Your task to perform on an android device: open app "NewsBreak: Local News & Alerts" (install if not already installed), go to login, and select forgot password Image 0: 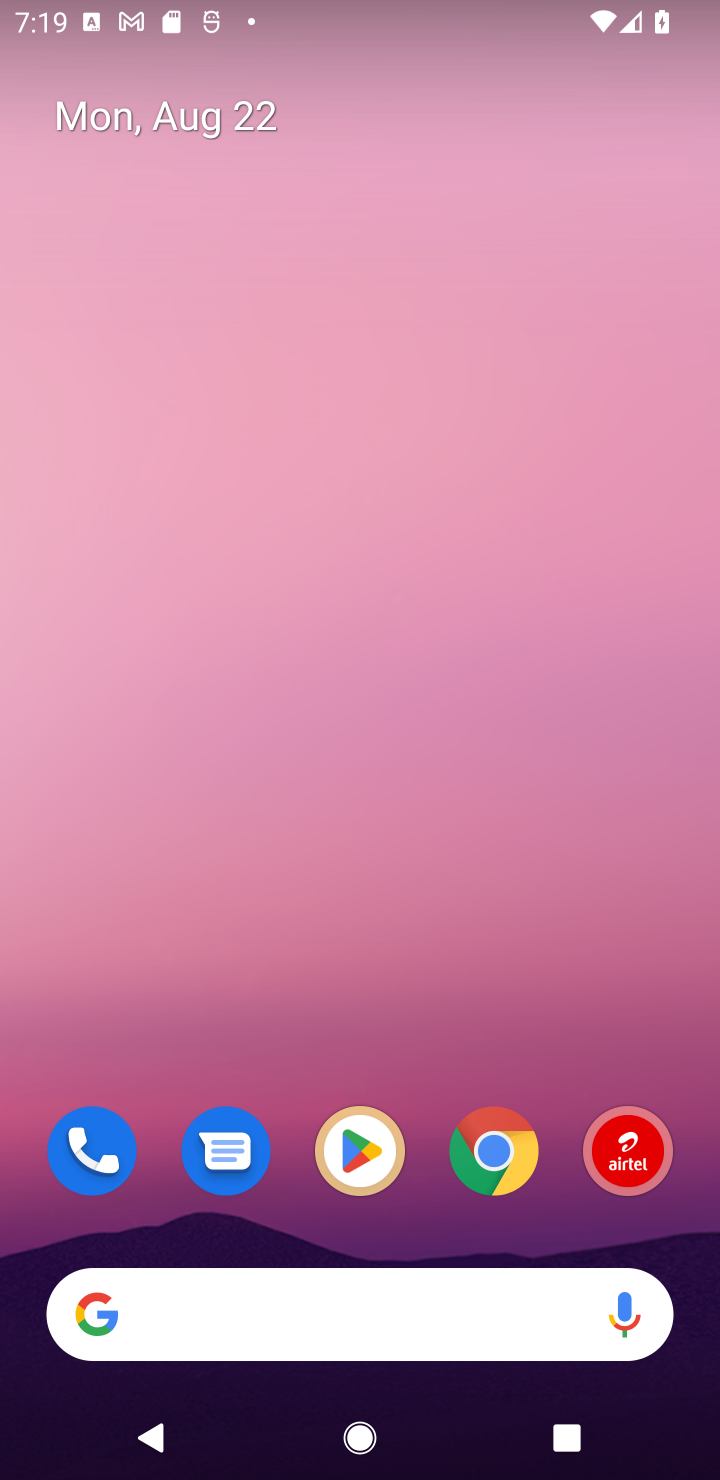
Step 0: press home button
Your task to perform on an android device: open app "NewsBreak: Local News & Alerts" (install if not already installed), go to login, and select forgot password Image 1: 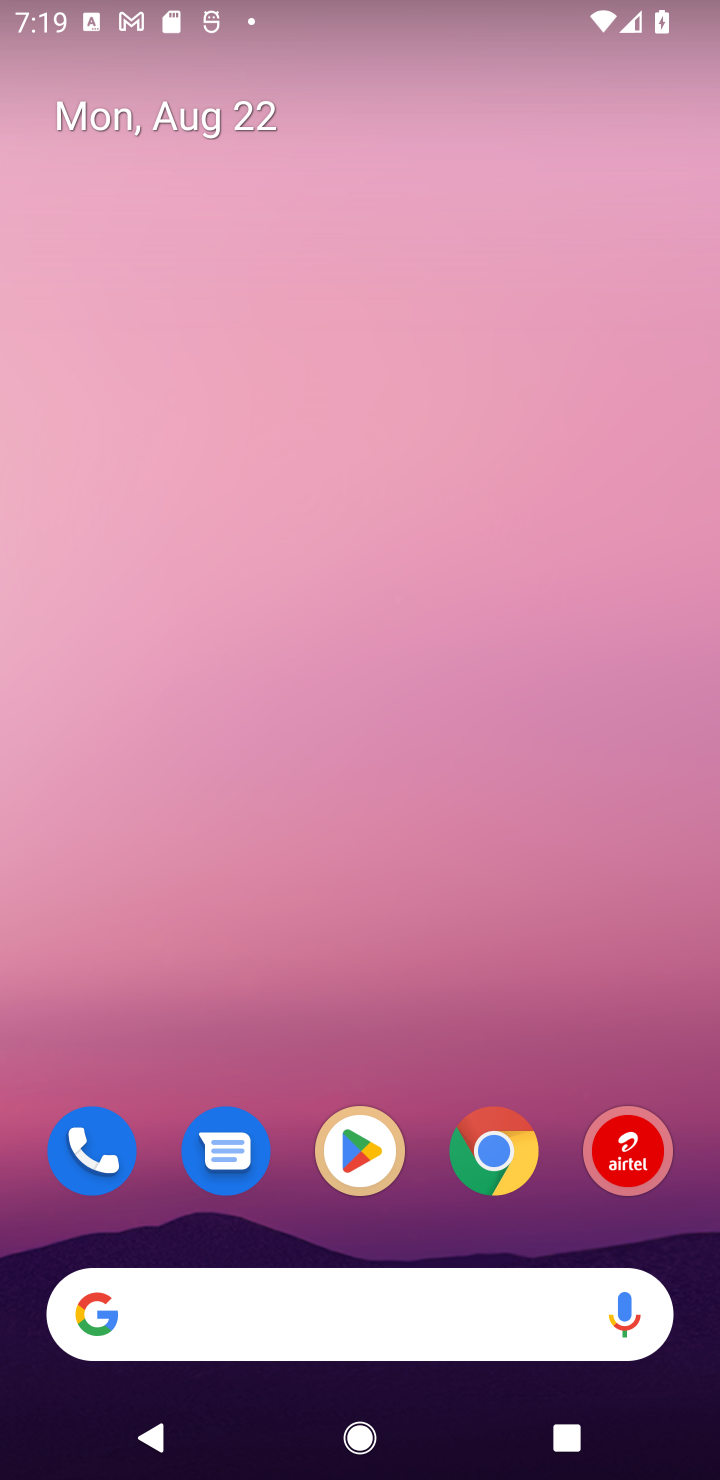
Step 1: click (340, 1160)
Your task to perform on an android device: open app "NewsBreak: Local News & Alerts" (install if not already installed), go to login, and select forgot password Image 2: 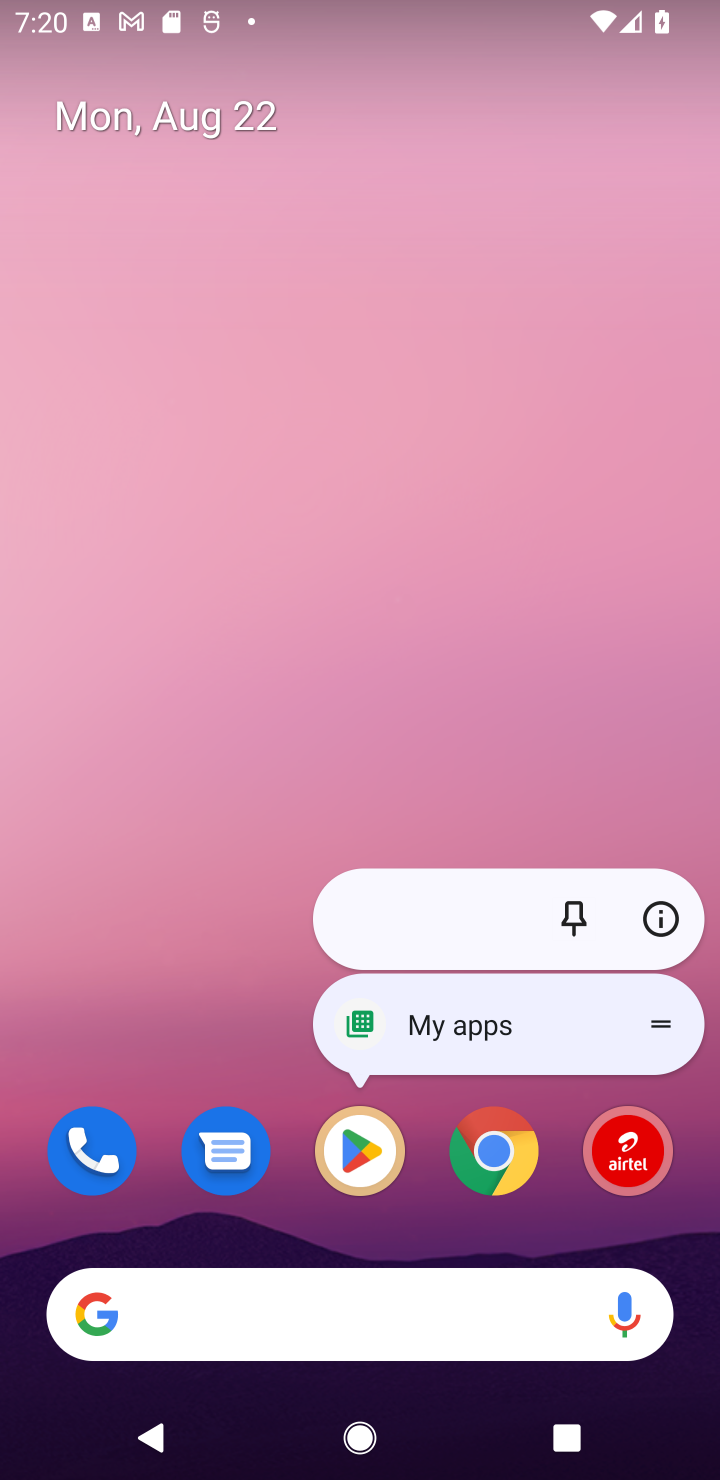
Step 2: click (340, 1165)
Your task to perform on an android device: open app "NewsBreak: Local News & Alerts" (install if not already installed), go to login, and select forgot password Image 3: 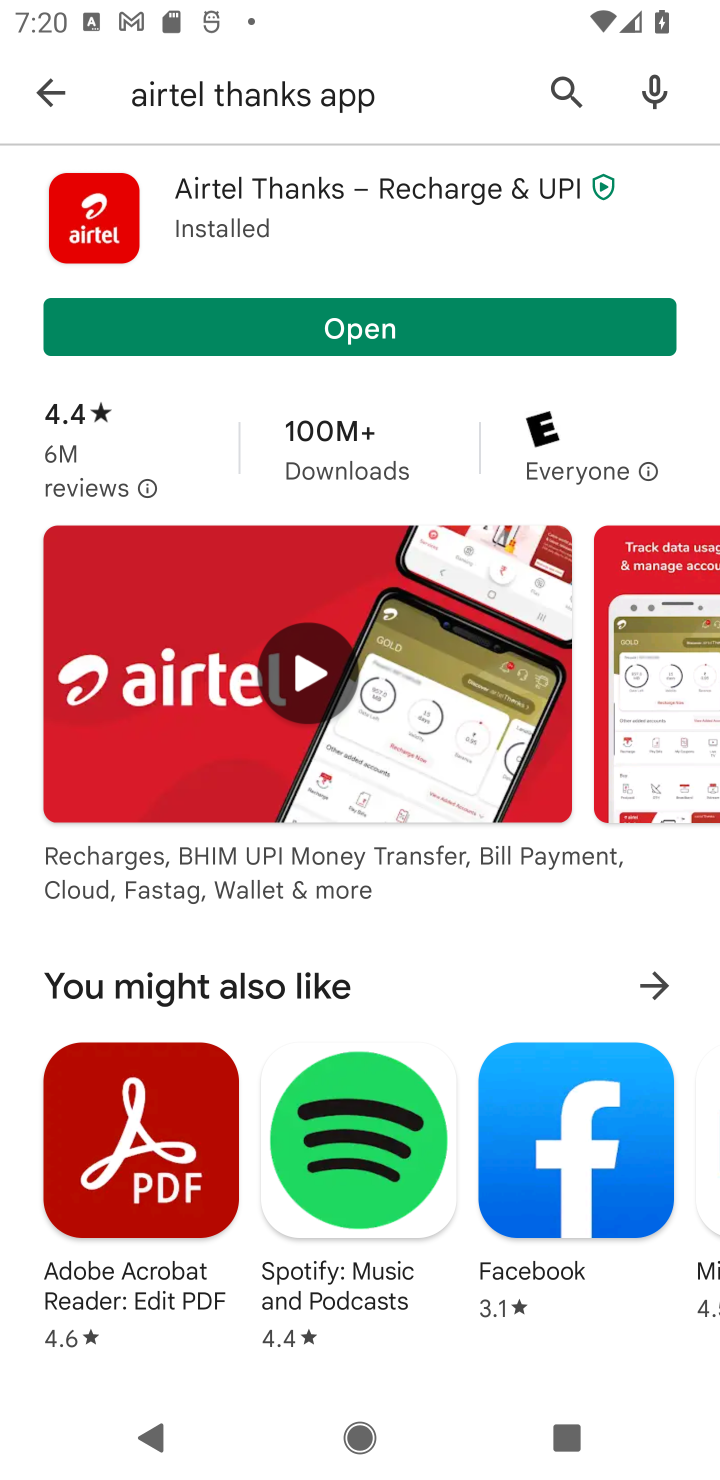
Step 3: click (560, 80)
Your task to perform on an android device: open app "NewsBreak: Local News & Alerts" (install if not already installed), go to login, and select forgot password Image 4: 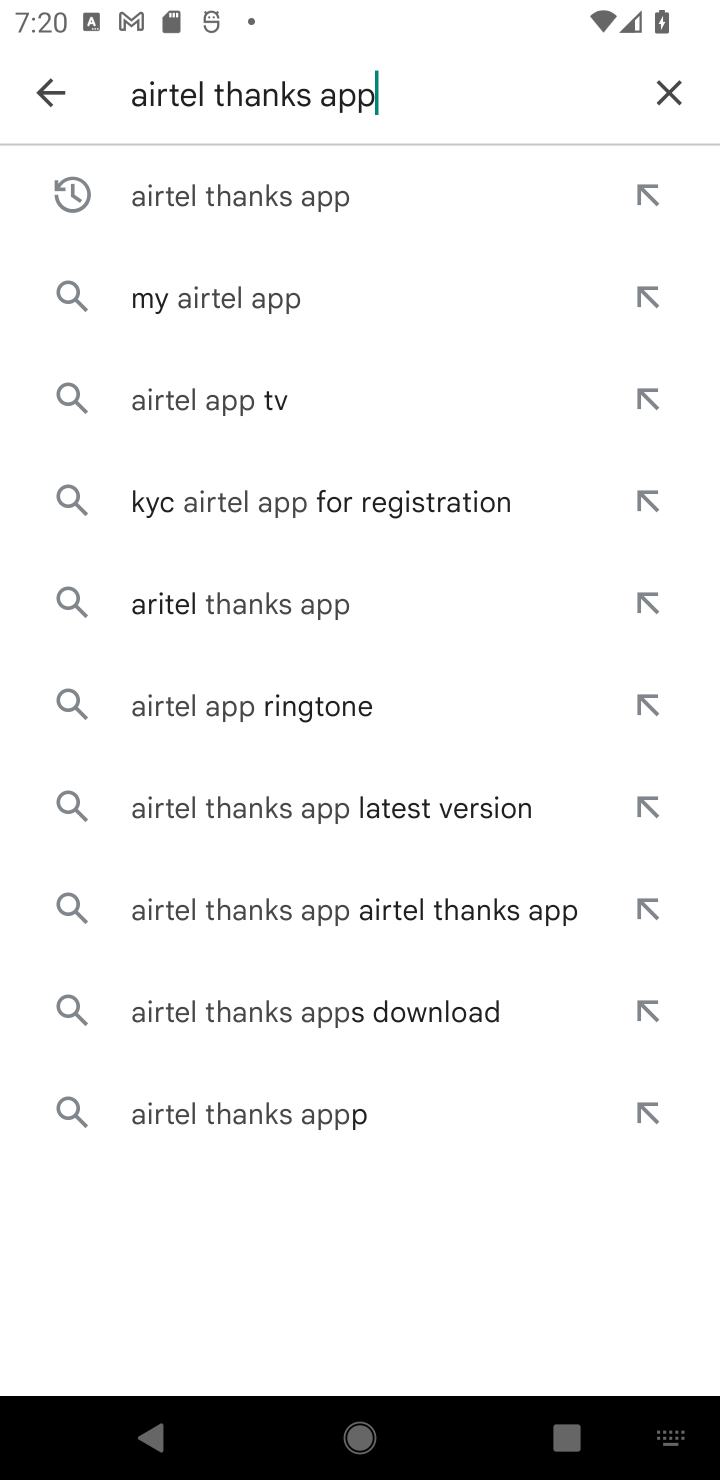
Step 4: click (663, 86)
Your task to perform on an android device: open app "NewsBreak: Local News & Alerts" (install if not already installed), go to login, and select forgot password Image 5: 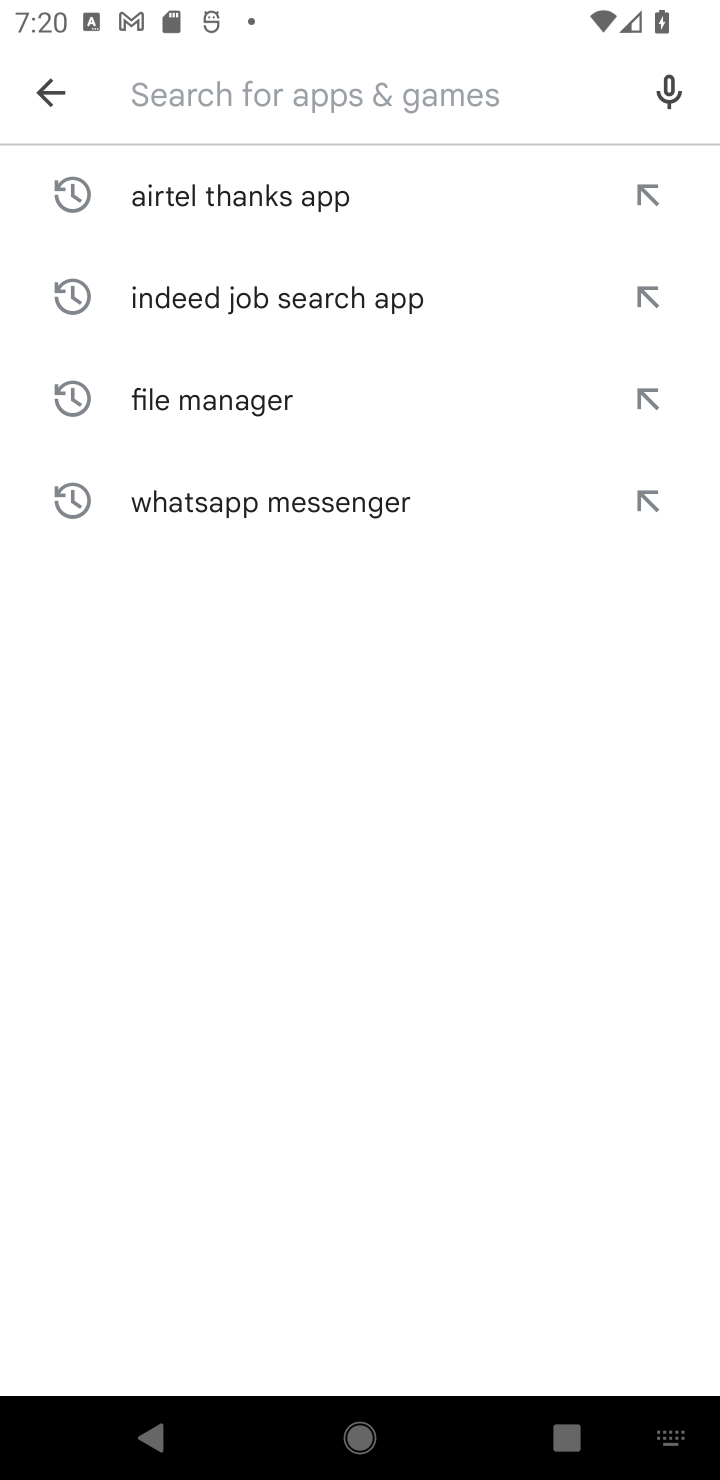
Step 5: type "NewsBreak: Local News & Alerts"
Your task to perform on an android device: open app "NewsBreak: Local News & Alerts" (install if not already installed), go to login, and select forgot password Image 6: 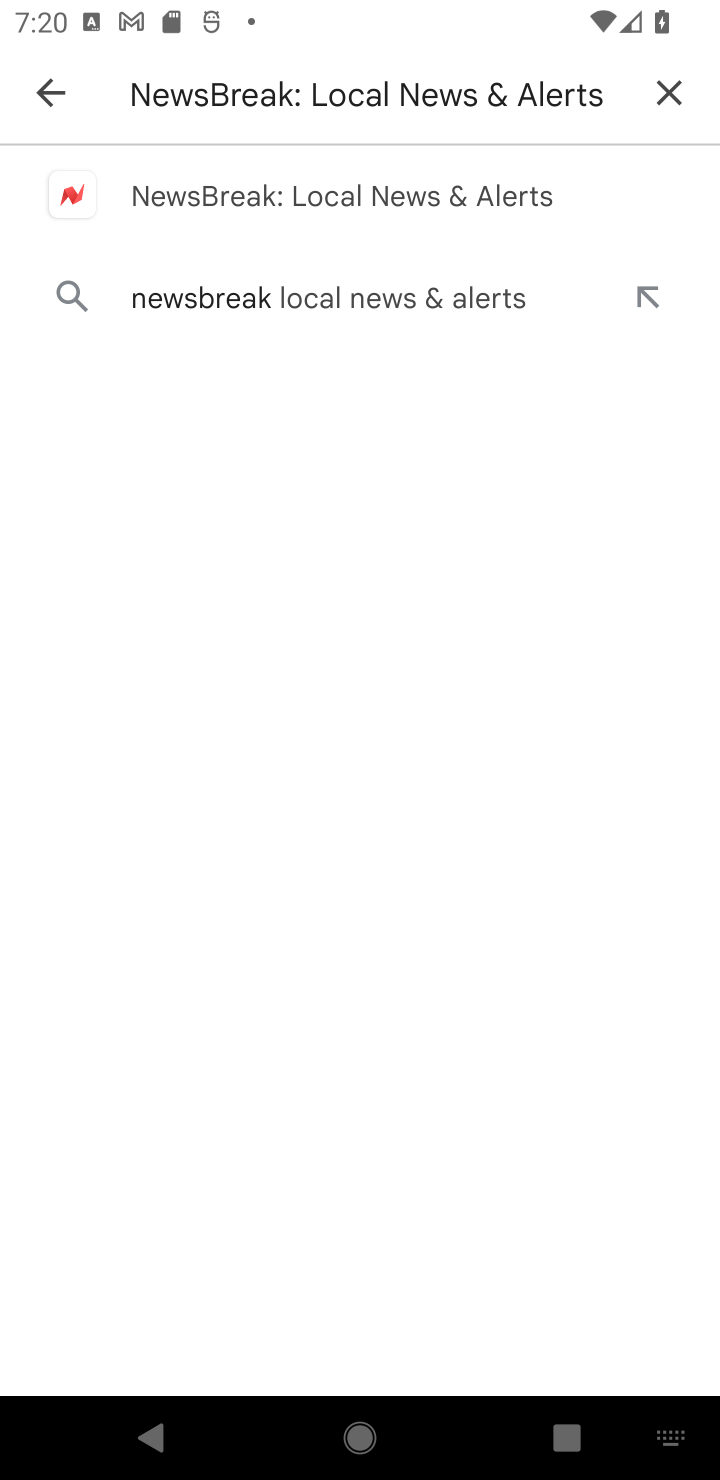
Step 6: click (372, 198)
Your task to perform on an android device: open app "NewsBreak: Local News & Alerts" (install if not already installed), go to login, and select forgot password Image 7: 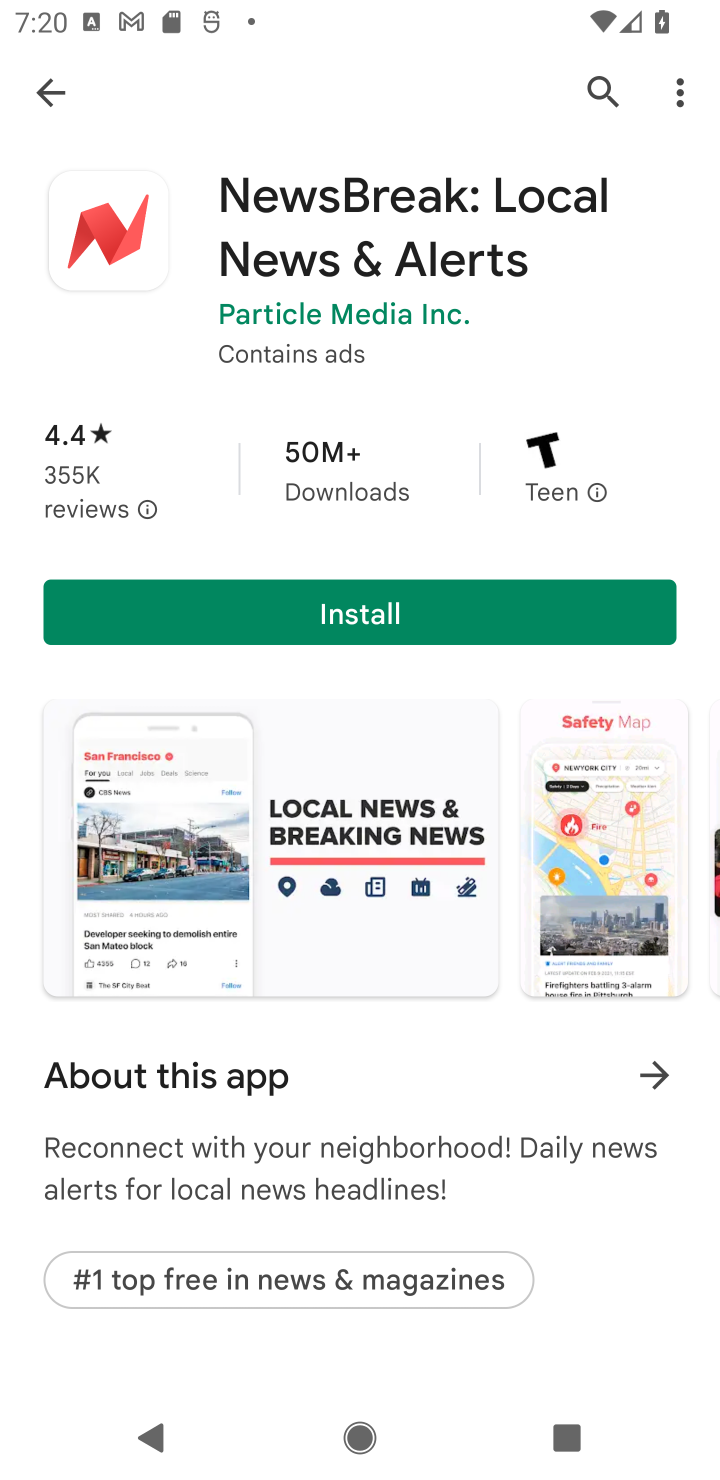
Step 7: click (354, 615)
Your task to perform on an android device: open app "NewsBreak: Local News & Alerts" (install if not already installed), go to login, and select forgot password Image 8: 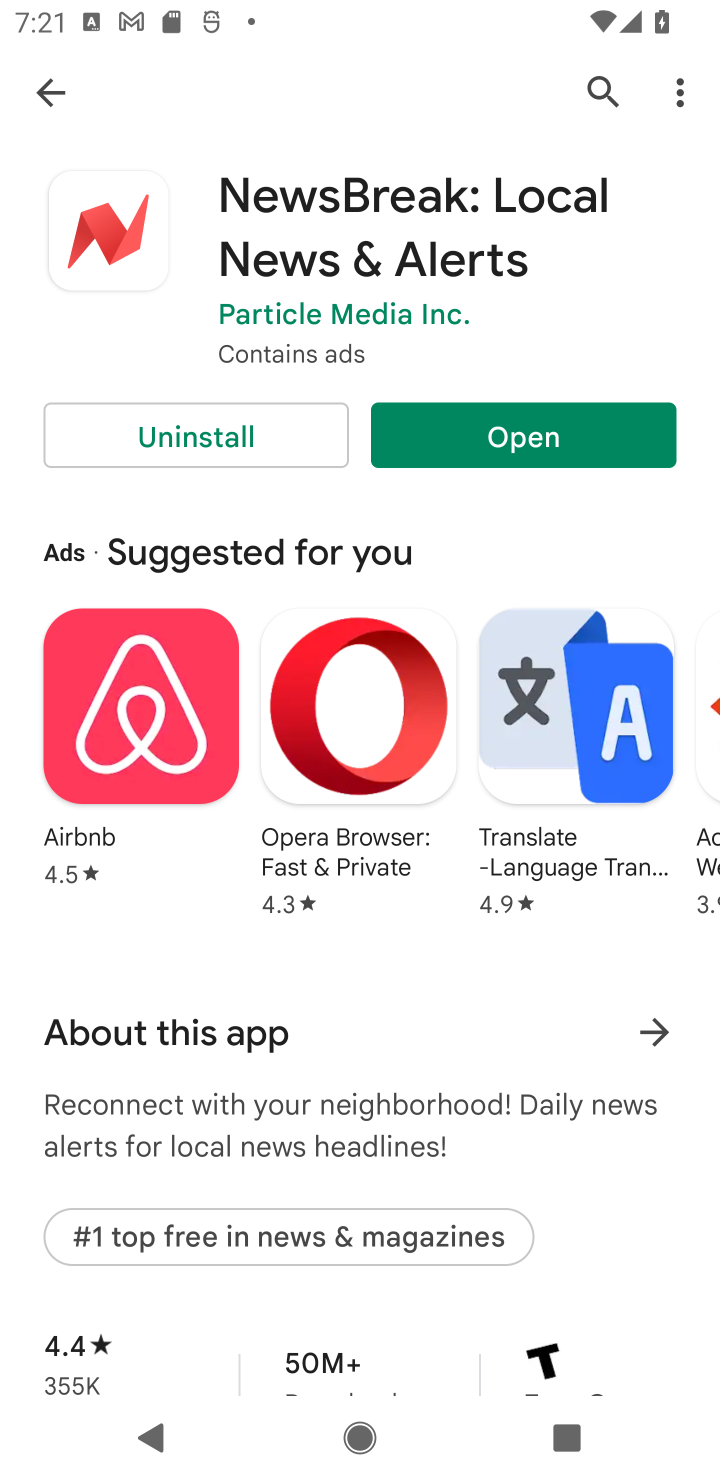
Step 8: click (547, 445)
Your task to perform on an android device: open app "NewsBreak: Local News & Alerts" (install if not already installed), go to login, and select forgot password Image 9: 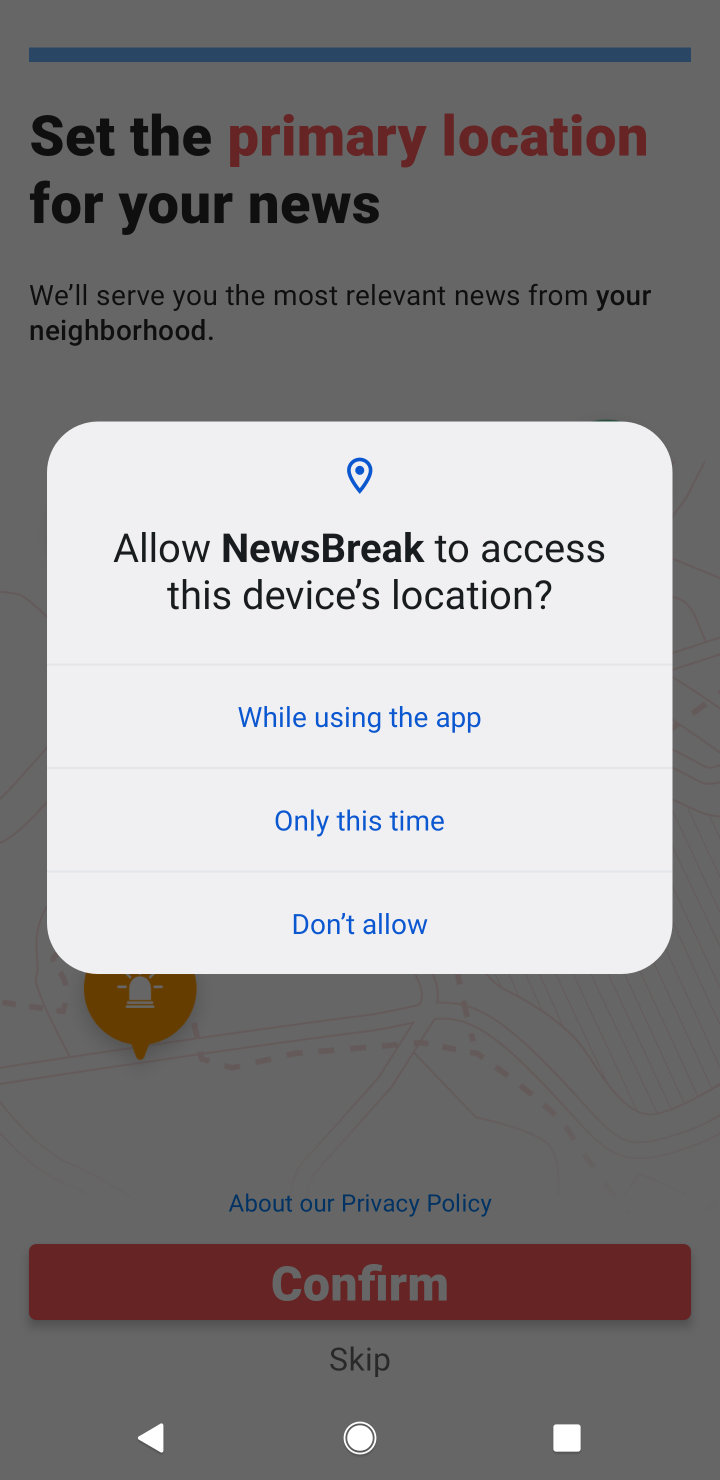
Step 9: click (360, 819)
Your task to perform on an android device: open app "NewsBreak: Local News & Alerts" (install if not already installed), go to login, and select forgot password Image 10: 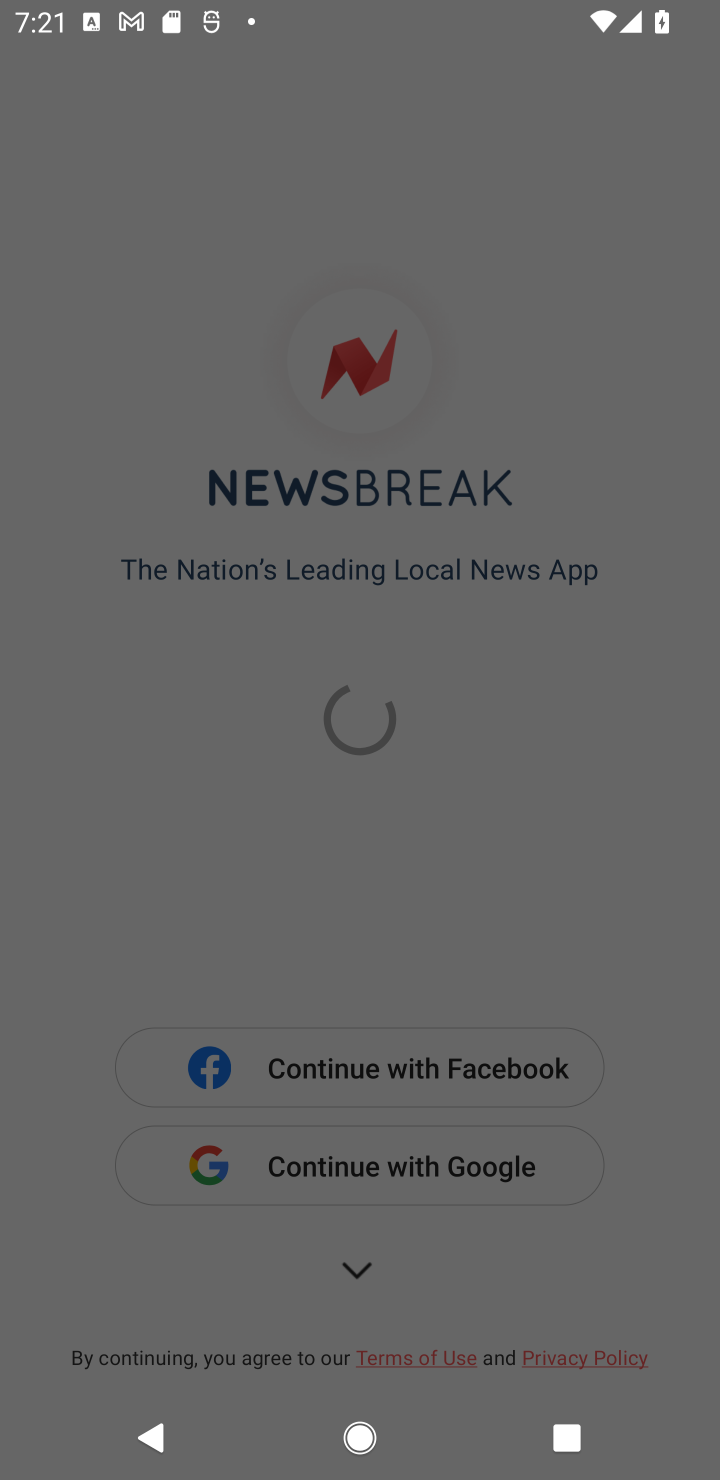
Step 10: click (363, 1279)
Your task to perform on an android device: open app "NewsBreak: Local News & Alerts" (install if not already installed), go to login, and select forgot password Image 11: 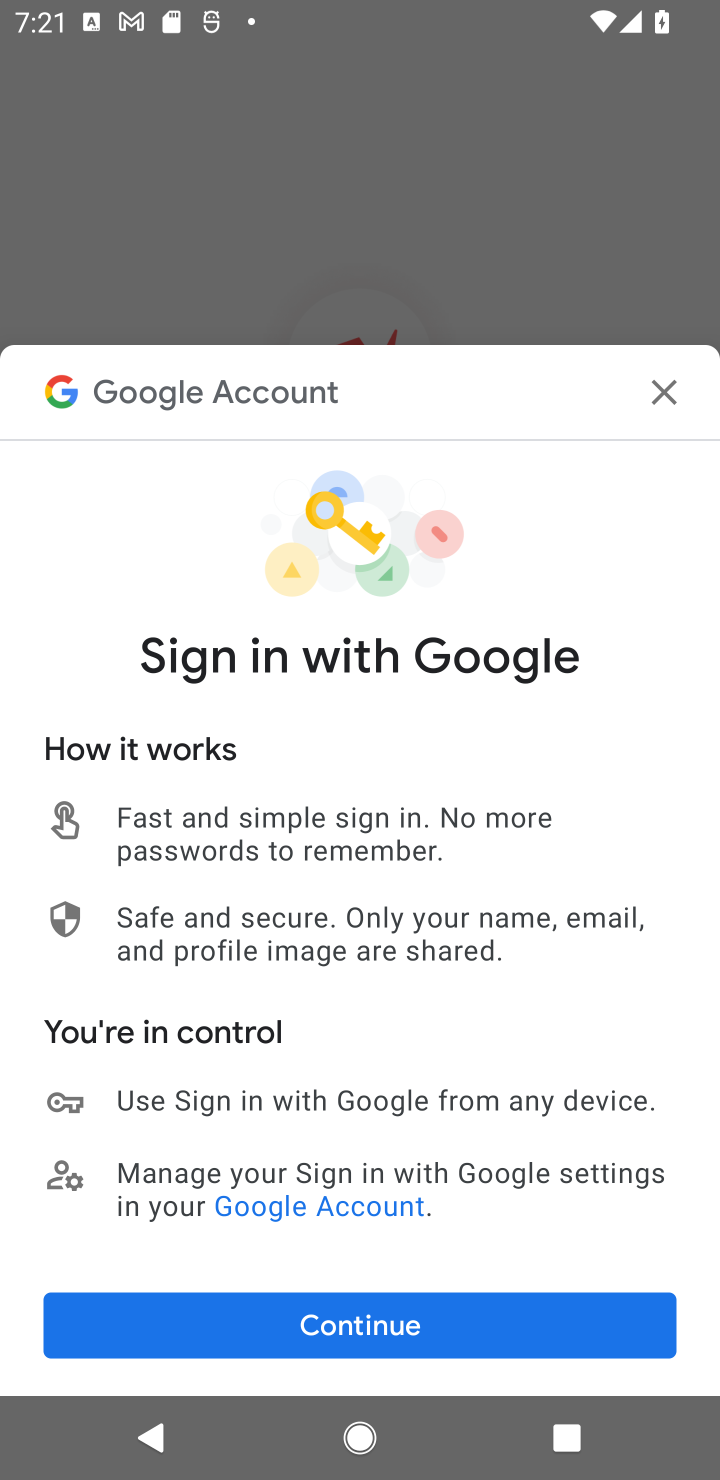
Step 11: click (416, 1303)
Your task to perform on an android device: open app "NewsBreak: Local News & Alerts" (install if not already installed), go to login, and select forgot password Image 12: 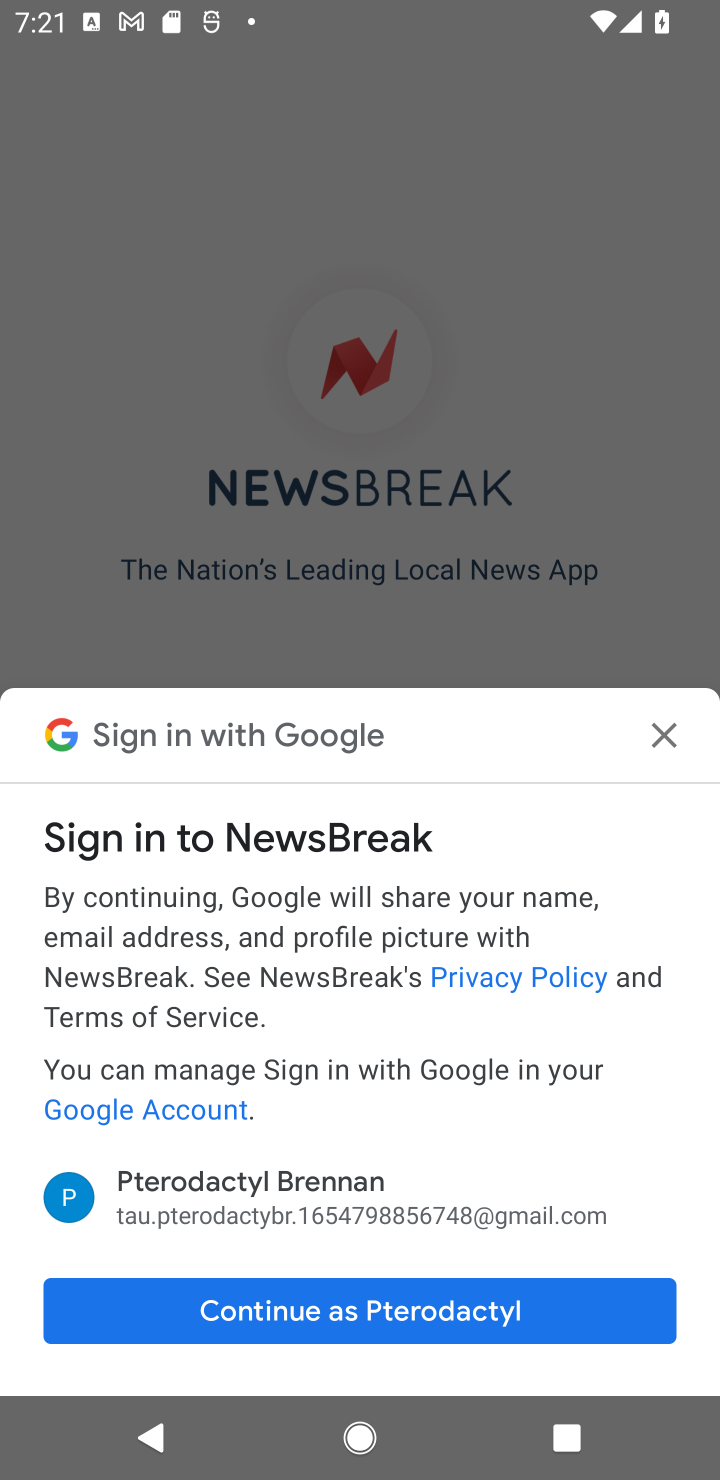
Step 12: task complete